Your task to perform on an android device: check google app version Image 0: 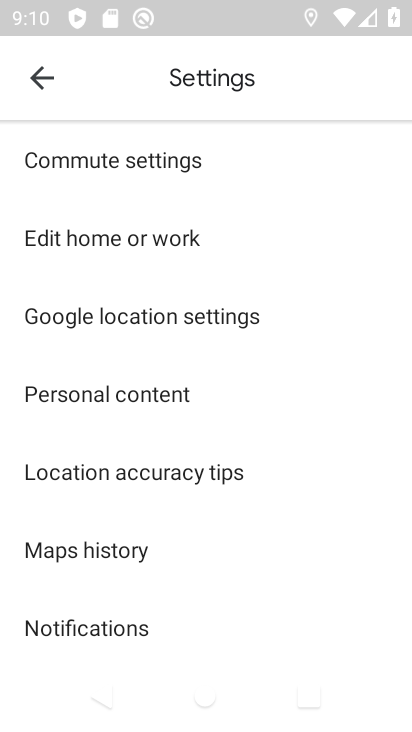
Step 0: press home button
Your task to perform on an android device: check google app version Image 1: 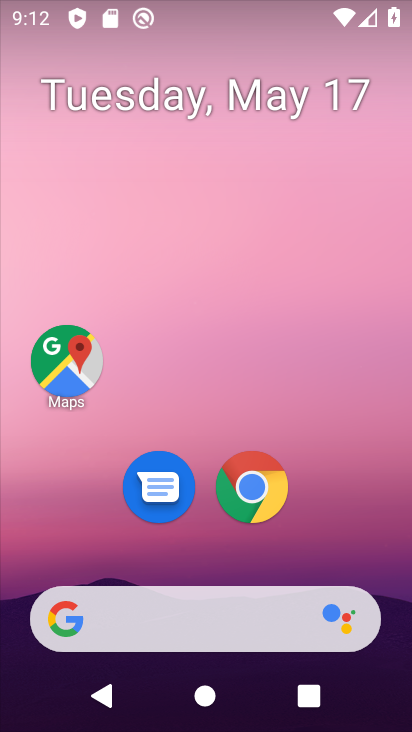
Step 1: drag from (262, 630) to (224, 63)
Your task to perform on an android device: check google app version Image 2: 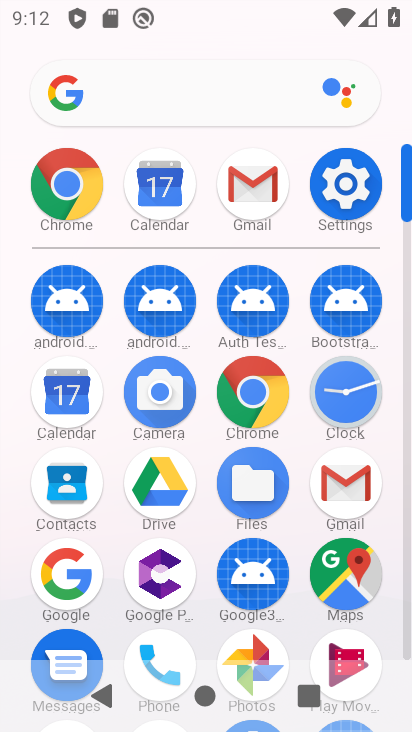
Step 2: click (79, 189)
Your task to perform on an android device: check google app version Image 3: 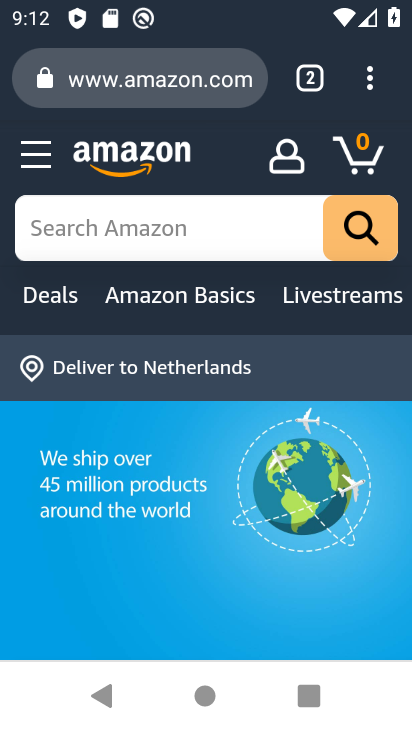
Step 3: click (373, 86)
Your task to perform on an android device: check google app version Image 4: 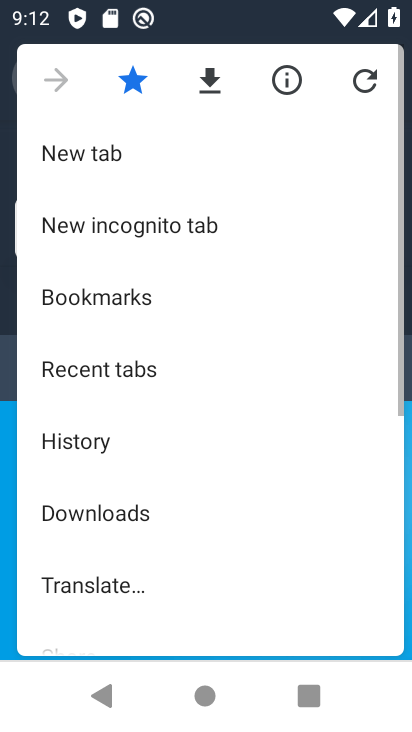
Step 4: drag from (187, 566) to (157, 252)
Your task to perform on an android device: check google app version Image 5: 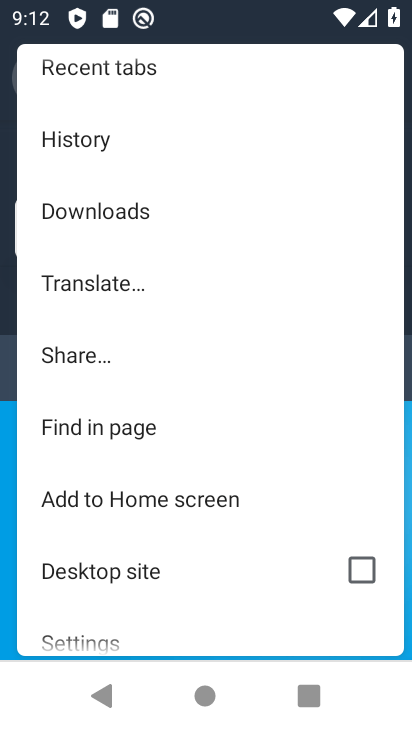
Step 5: click (112, 628)
Your task to perform on an android device: check google app version Image 6: 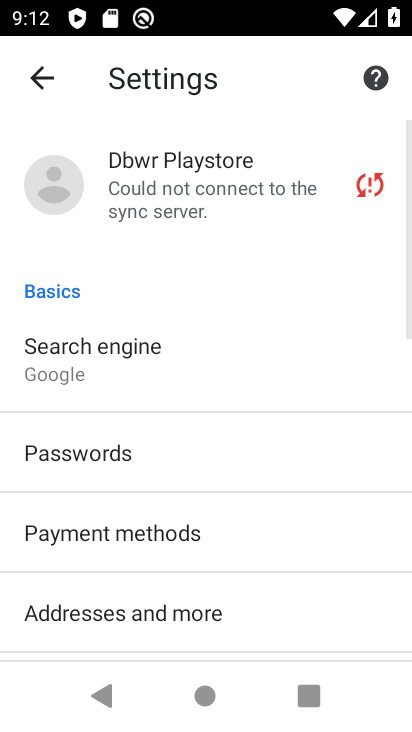
Step 6: drag from (189, 539) to (155, 128)
Your task to perform on an android device: check google app version Image 7: 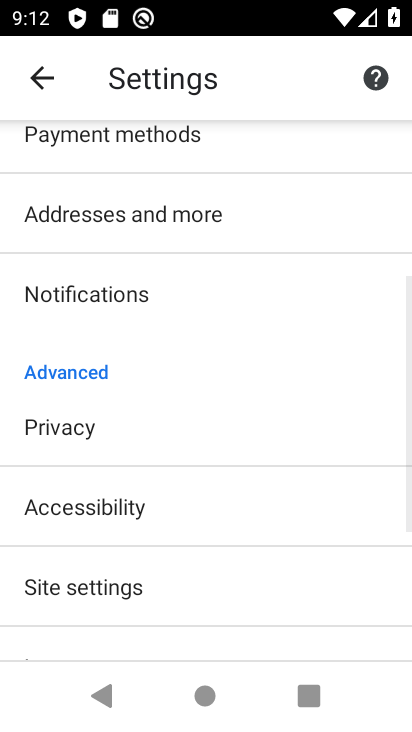
Step 7: drag from (98, 436) to (141, 227)
Your task to perform on an android device: check google app version Image 8: 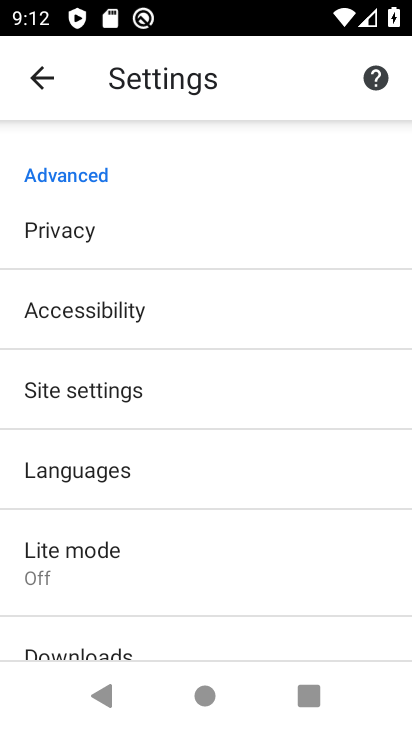
Step 8: drag from (109, 613) to (183, 218)
Your task to perform on an android device: check google app version Image 9: 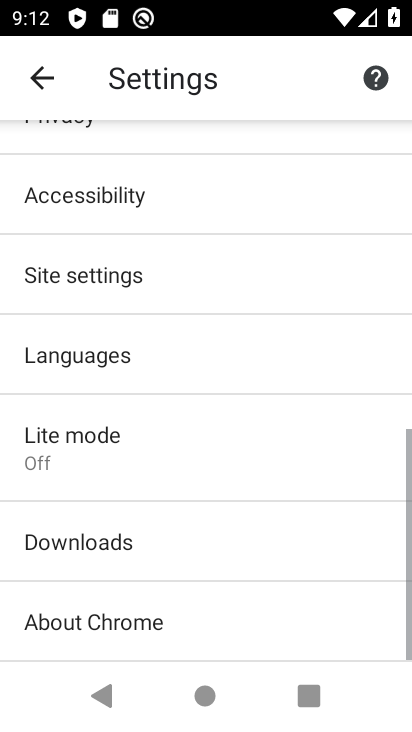
Step 9: click (125, 627)
Your task to perform on an android device: check google app version Image 10: 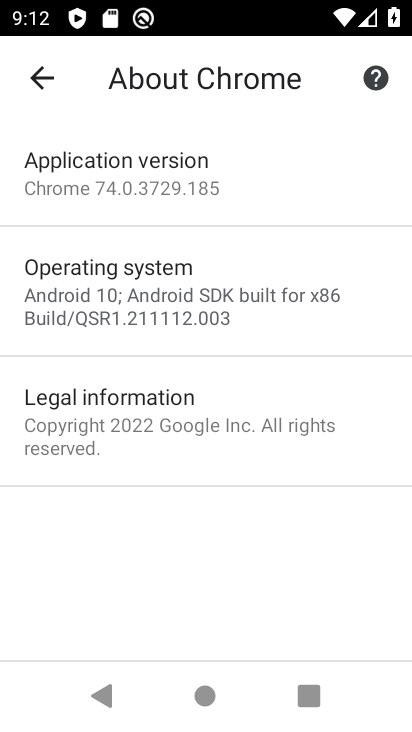
Step 10: task complete